Your task to perform on an android device: turn notification dots off Image 0: 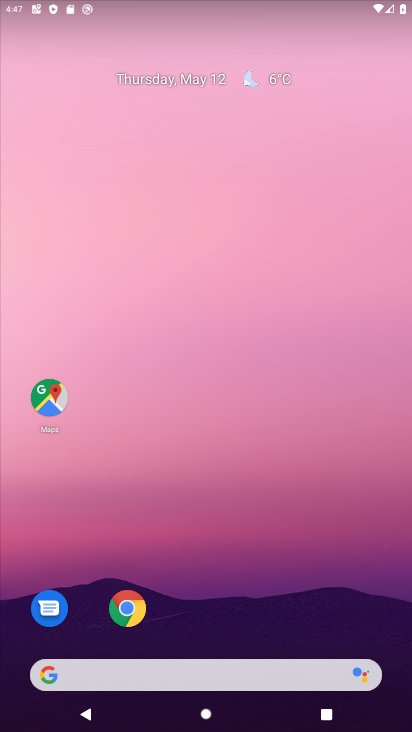
Step 0: drag from (179, 616) to (215, 289)
Your task to perform on an android device: turn notification dots off Image 1: 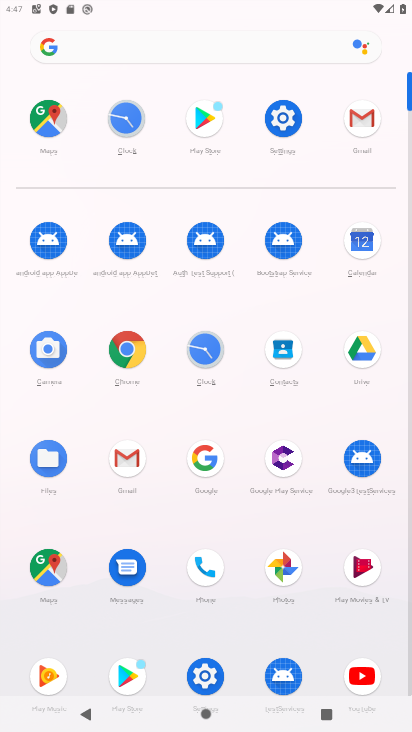
Step 1: click (285, 119)
Your task to perform on an android device: turn notification dots off Image 2: 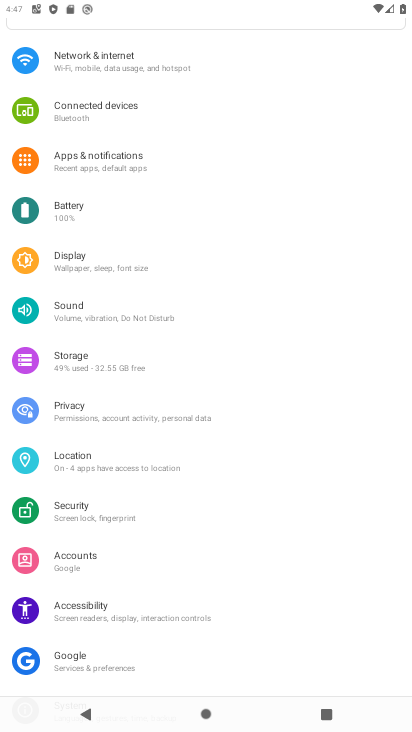
Step 2: click (151, 161)
Your task to perform on an android device: turn notification dots off Image 3: 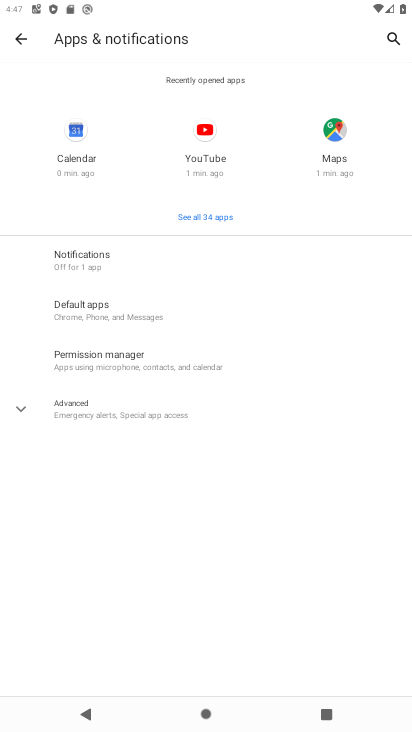
Step 3: click (150, 264)
Your task to perform on an android device: turn notification dots off Image 4: 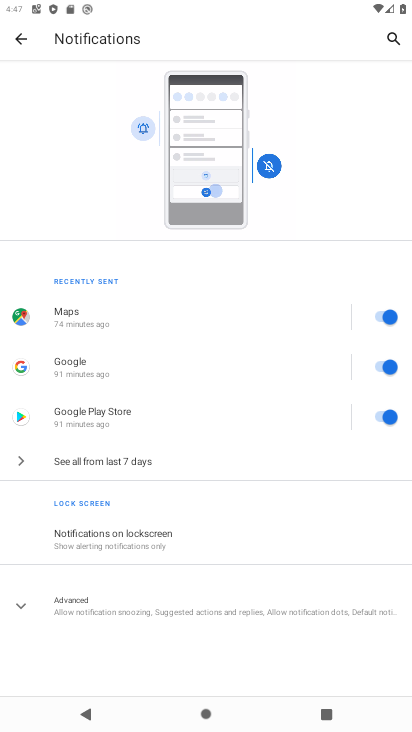
Step 4: click (135, 528)
Your task to perform on an android device: turn notification dots off Image 5: 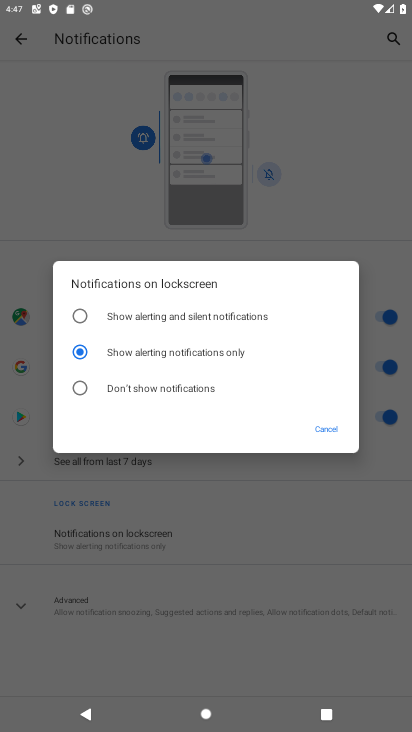
Step 5: click (163, 543)
Your task to perform on an android device: turn notification dots off Image 6: 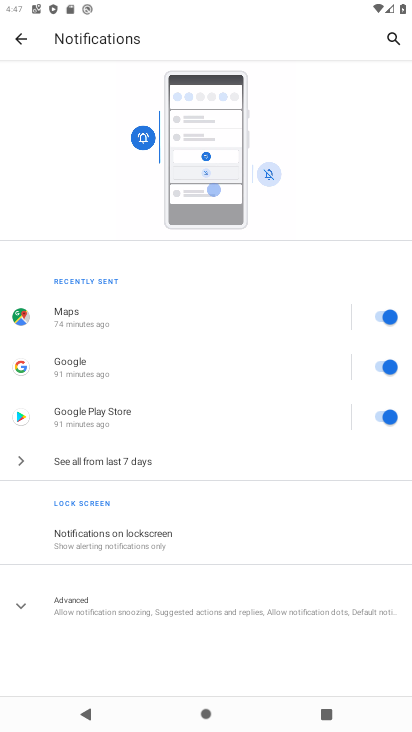
Step 6: click (115, 604)
Your task to perform on an android device: turn notification dots off Image 7: 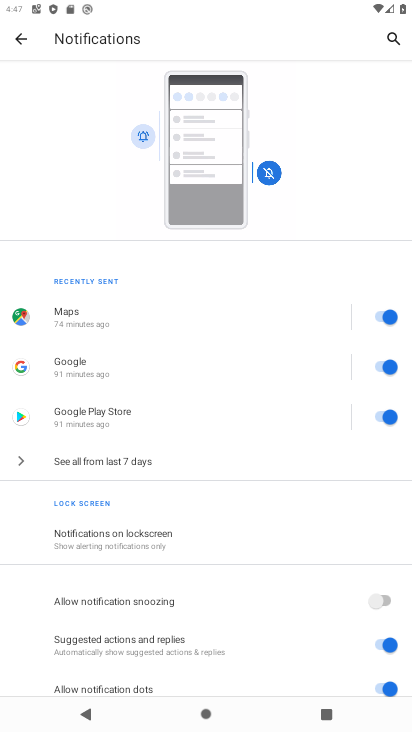
Step 7: drag from (141, 619) to (236, 298)
Your task to perform on an android device: turn notification dots off Image 8: 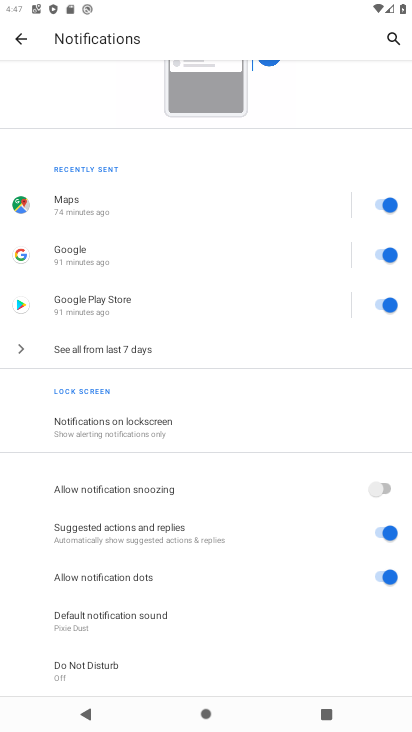
Step 8: click (380, 577)
Your task to perform on an android device: turn notification dots off Image 9: 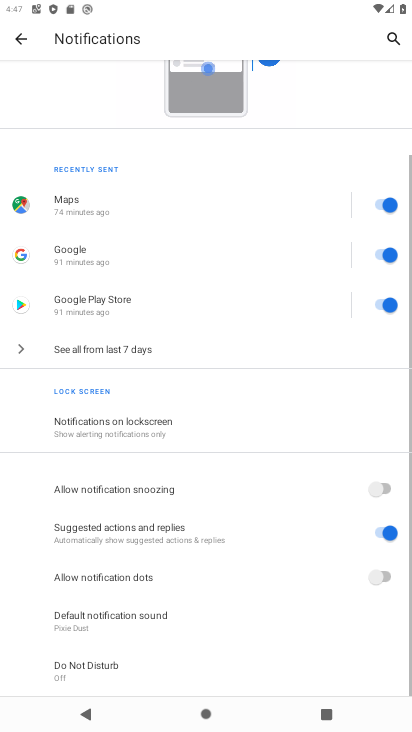
Step 9: task complete